Your task to perform on an android device: allow cookies in the chrome app Image 0: 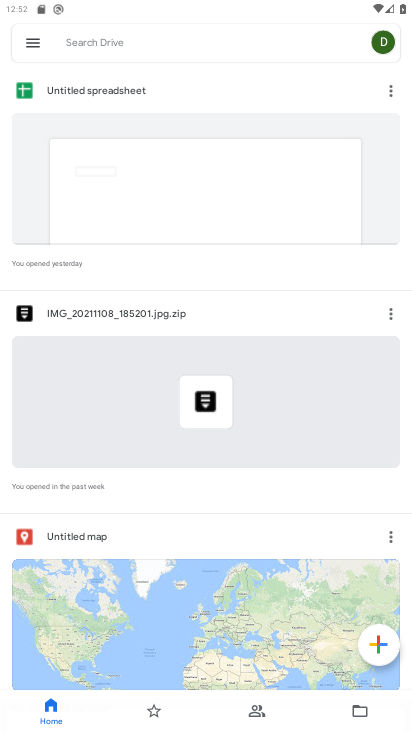
Step 0: press home button
Your task to perform on an android device: allow cookies in the chrome app Image 1: 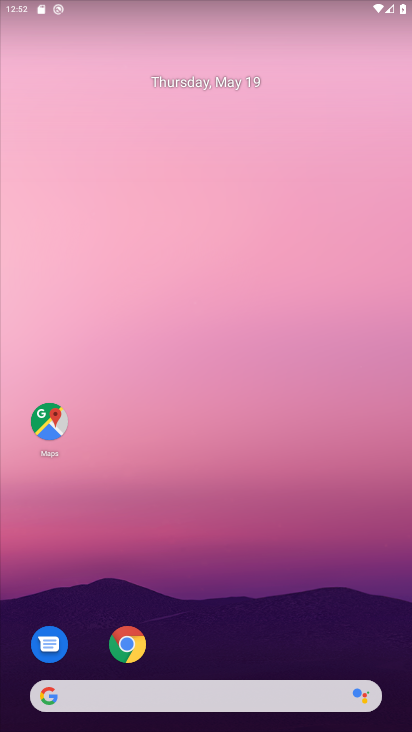
Step 1: click (127, 643)
Your task to perform on an android device: allow cookies in the chrome app Image 2: 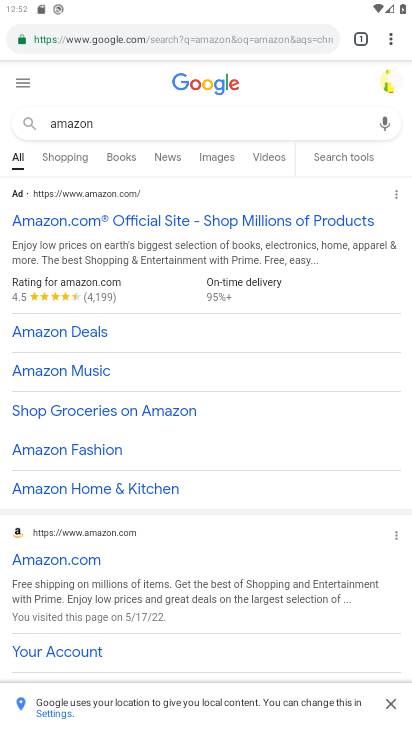
Step 2: click (386, 41)
Your task to perform on an android device: allow cookies in the chrome app Image 3: 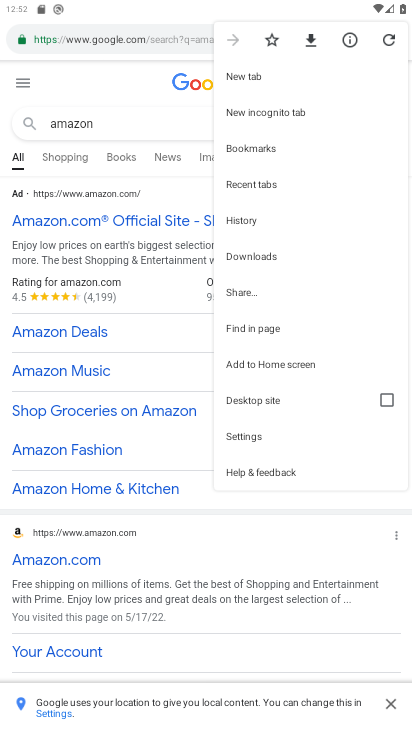
Step 3: click (237, 434)
Your task to perform on an android device: allow cookies in the chrome app Image 4: 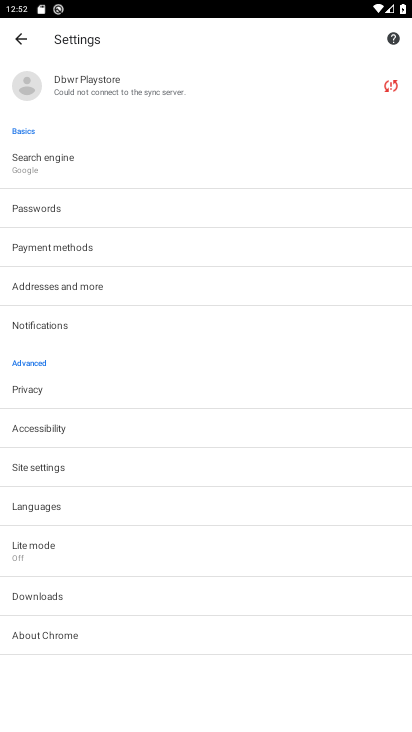
Step 4: click (60, 469)
Your task to perform on an android device: allow cookies in the chrome app Image 5: 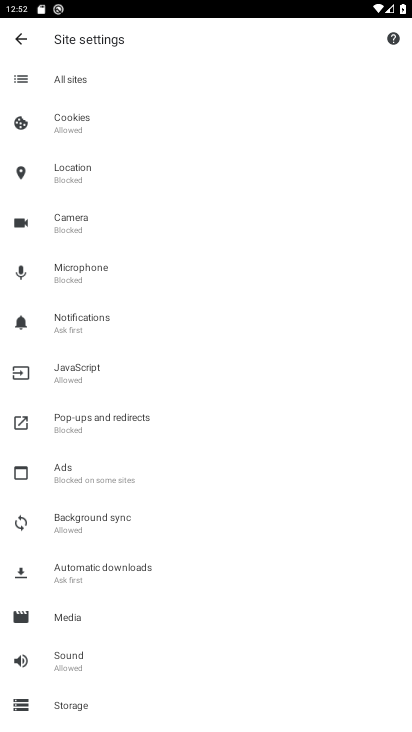
Step 5: click (83, 127)
Your task to perform on an android device: allow cookies in the chrome app Image 6: 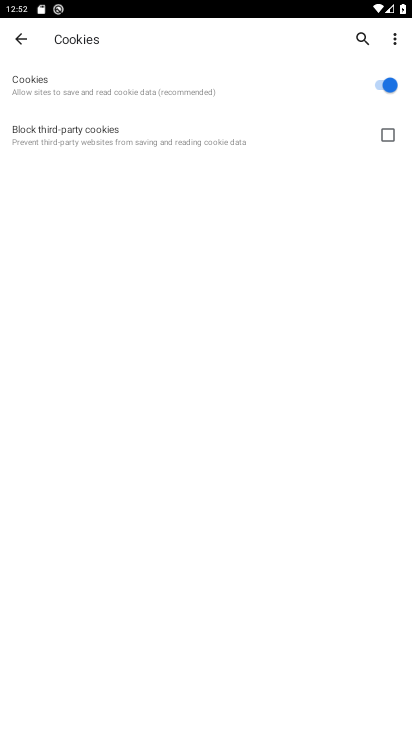
Step 6: task complete